Your task to perform on an android device: open wifi settings Image 0: 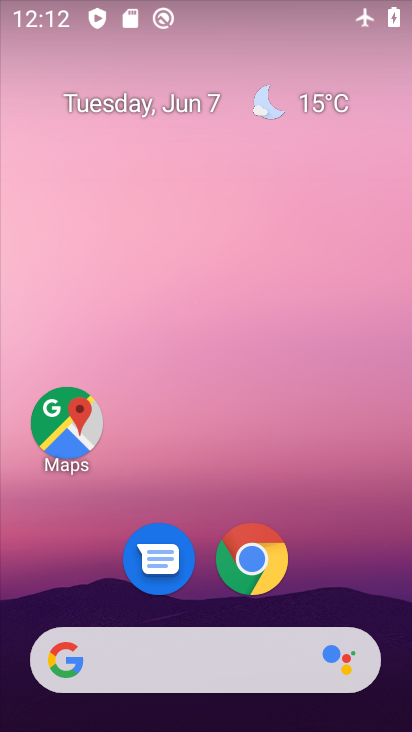
Step 0: drag from (385, 614) to (361, 22)
Your task to perform on an android device: open wifi settings Image 1: 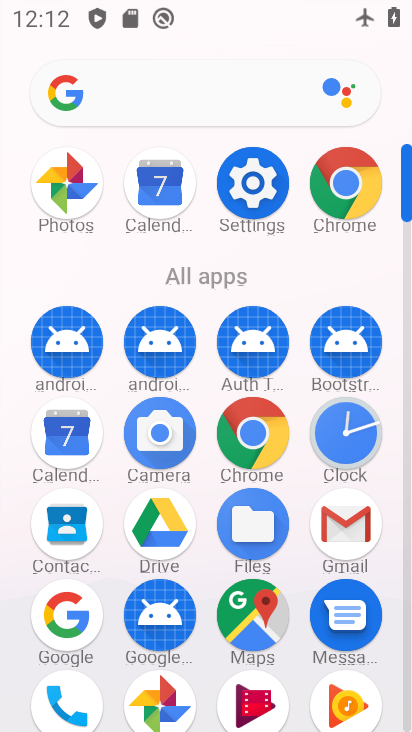
Step 1: click (405, 680)
Your task to perform on an android device: open wifi settings Image 2: 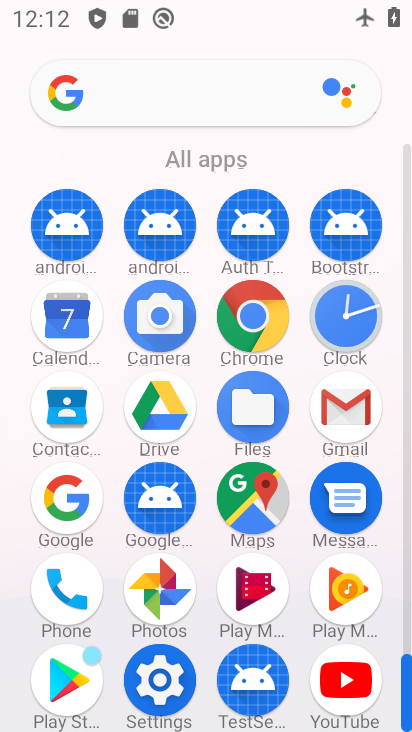
Step 2: click (161, 678)
Your task to perform on an android device: open wifi settings Image 3: 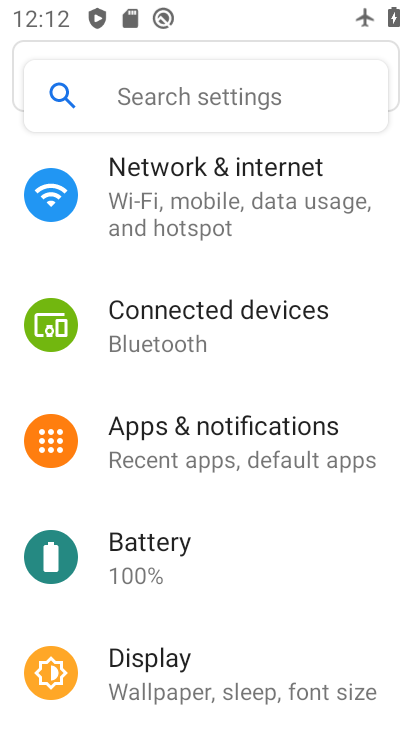
Step 3: click (184, 189)
Your task to perform on an android device: open wifi settings Image 4: 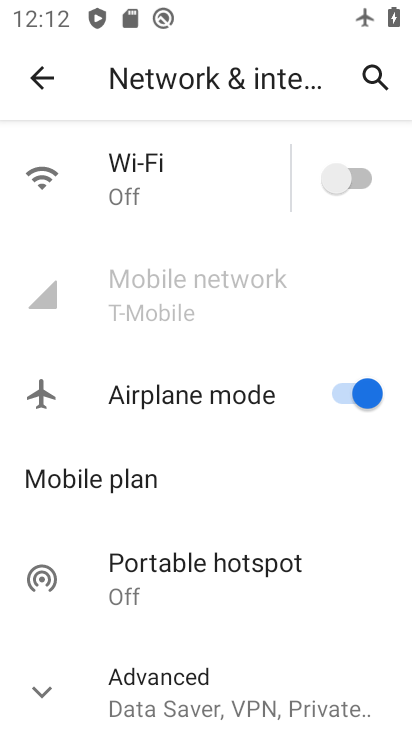
Step 4: click (105, 168)
Your task to perform on an android device: open wifi settings Image 5: 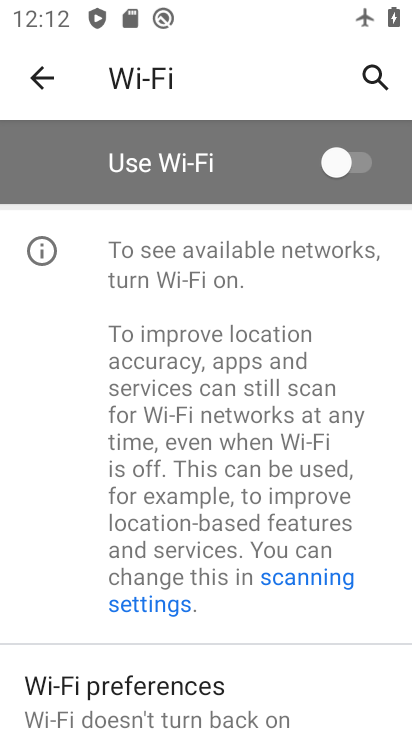
Step 5: task complete